Your task to perform on an android device: open app "DoorDash - Dasher" (install if not already installed) and enter user name: "resistor@inbox.com" and password: "cholera" Image 0: 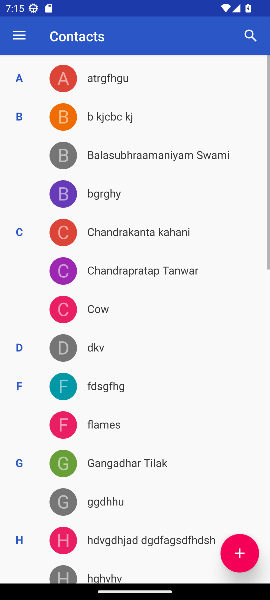
Step 0: press home button
Your task to perform on an android device: open app "DoorDash - Dasher" (install if not already installed) and enter user name: "resistor@inbox.com" and password: "cholera" Image 1: 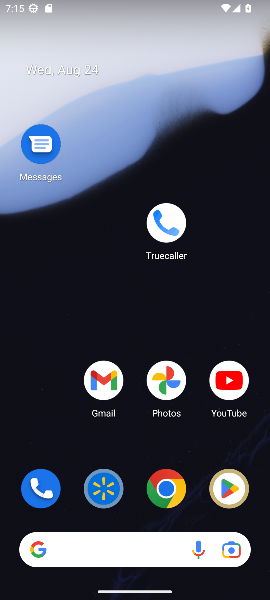
Step 1: click (223, 496)
Your task to perform on an android device: open app "DoorDash - Dasher" (install if not already installed) and enter user name: "resistor@inbox.com" and password: "cholera" Image 2: 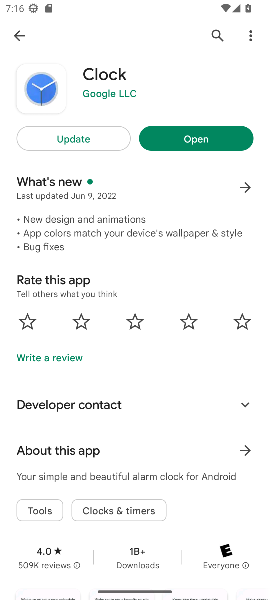
Step 2: click (215, 41)
Your task to perform on an android device: open app "DoorDash - Dasher" (install if not already installed) and enter user name: "resistor@inbox.com" and password: "cholera" Image 3: 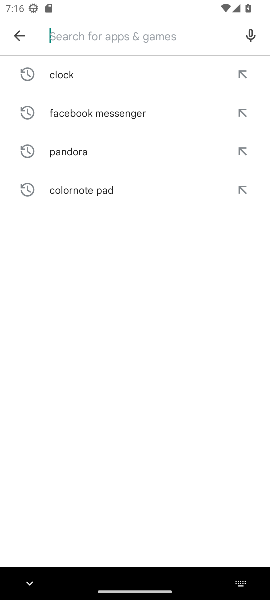
Step 3: click (201, 42)
Your task to perform on an android device: open app "DoorDash - Dasher" (install if not already installed) and enter user name: "resistor@inbox.com" and password: "cholera" Image 4: 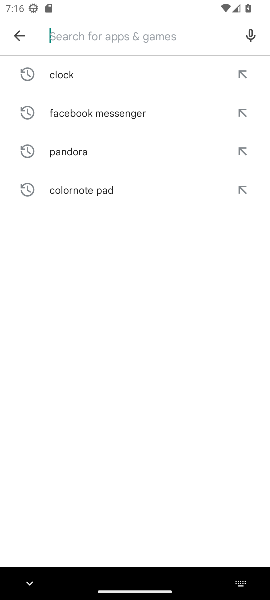
Step 4: type "door dash"
Your task to perform on an android device: open app "DoorDash - Dasher" (install if not already installed) and enter user name: "resistor@inbox.com" and password: "cholera" Image 5: 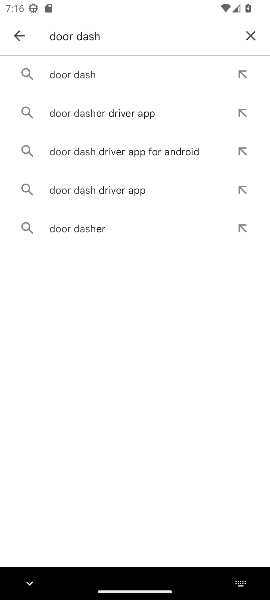
Step 5: click (87, 69)
Your task to perform on an android device: open app "DoorDash - Dasher" (install if not already installed) and enter user name: "resistor@inbox.com" and password: "cholera" Image 6: 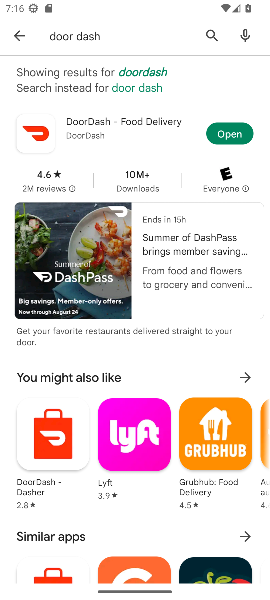
Step 6: click (230, 135)
Your task to perform on an android device: open app "DoorDash - Dasher" (install if not already installed) and enter user name: "resistor@inbox.com" and password: "cholera" Image 7: 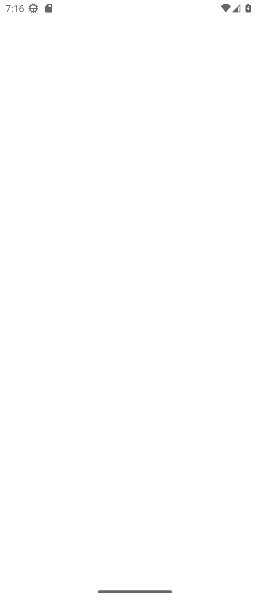
Step 7: task complete